Your task to perform on an android device: turn smart compose on in the gmail app Image 0: 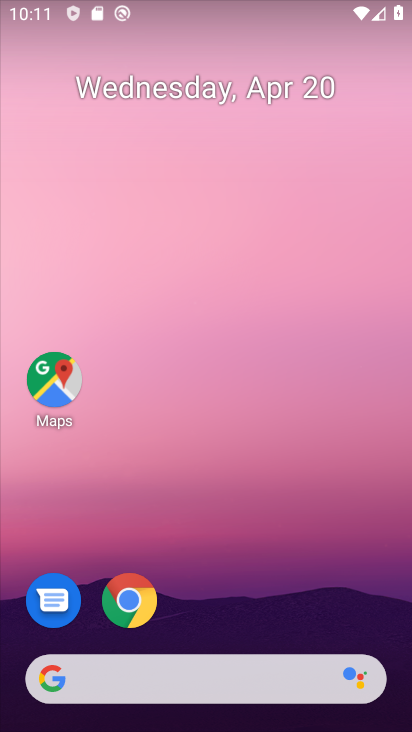
Step 0: drag from (320, 246) to (322, 157)
Your task to perform on an android device: turn smart compose on in the gmail app Image 1: 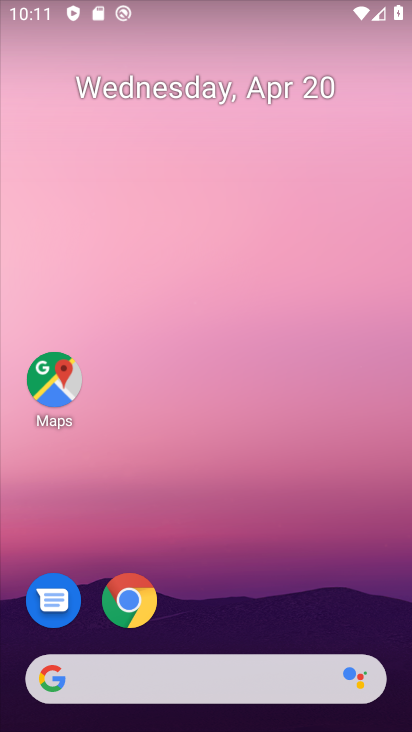
Step 1: drag from (229, 640) to (239, 175)
Your task to perform on an android device: turn smart compose on in the gmail app Image 2: 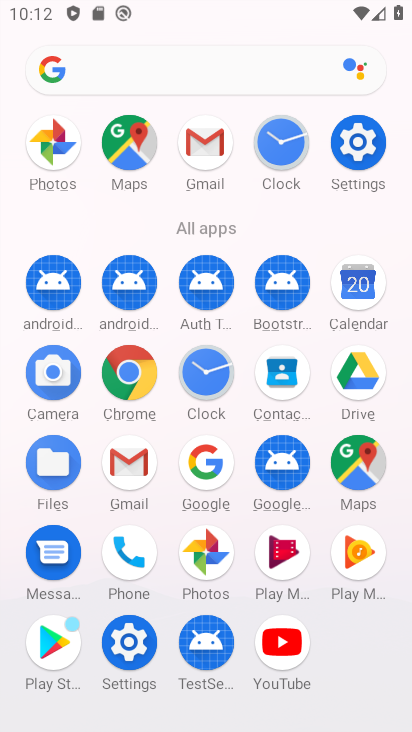
Step 2: click (131, 472)
Your task to perform on an android device: turn smart compose on in the gmail app Image 3: 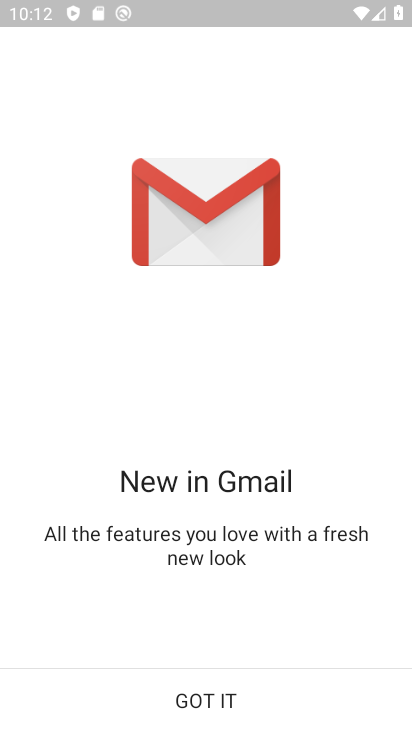
Step 3: click (184, 687)
Your task to perform on an android device: turn smart compose on in the gmail app Image 4: 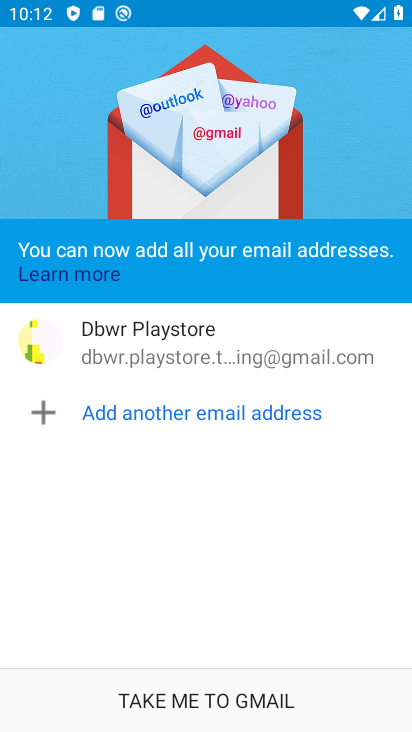
Step 4: click (184, 687)
Your task to perform on an android device: turn smart compose on in the gmail app Image 5: 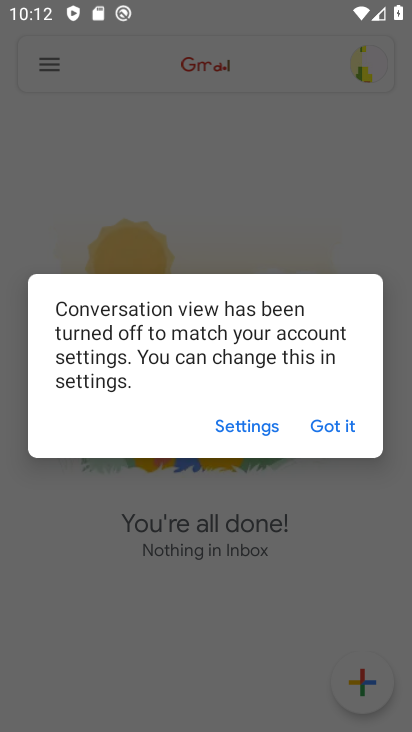
Step 5: click (326, 429)
Your task to perform on an android device: turn smart compose on in the gmail app Image 6: 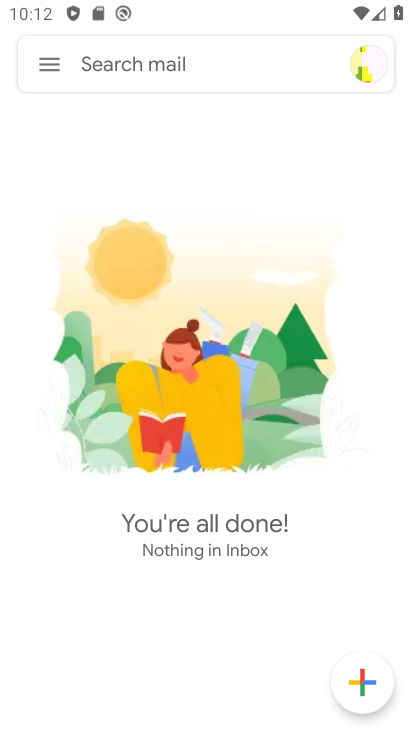
Step 6: click (51, 66)
Your task to perform on an android device: turn smart compose on in the gmail app Image 7: 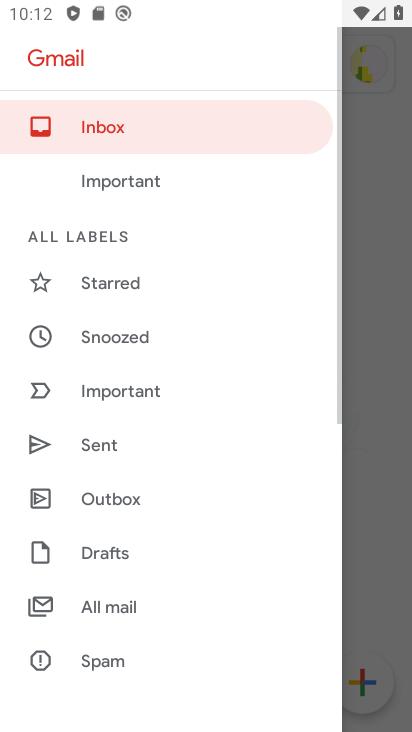
Step 7: drag from (183, 638) to (239, 67)
Your task to perform on an android device: turn smart compose on in the gmail app Image 8: 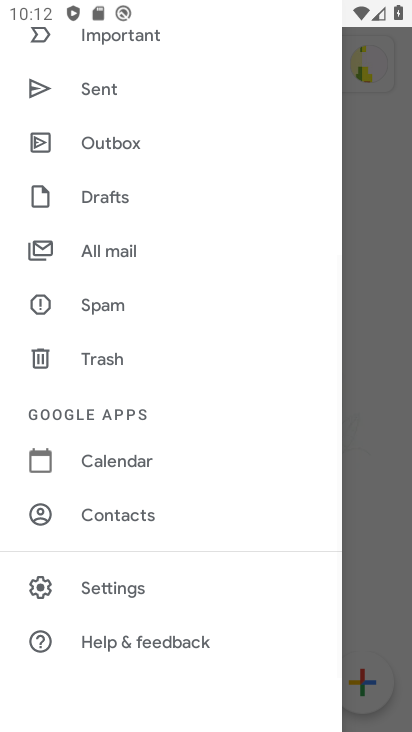
Step 8: click (133, 588)
Your task to perform on an android device: turn smart compose on in the gmail app Image 9: 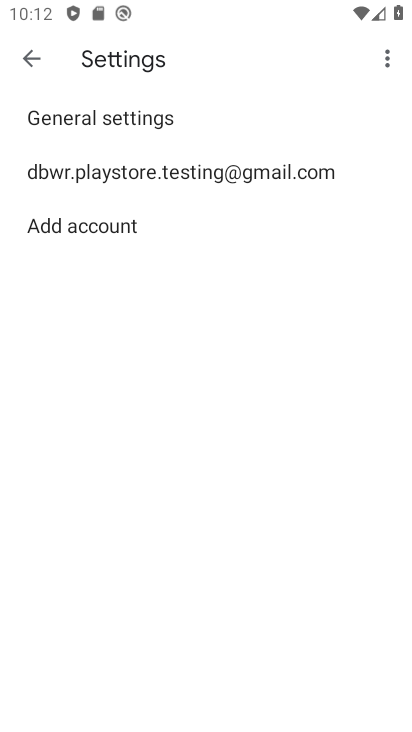
Step 9: click (205, 182)
Your task to perform on an android device: turn smart compose on in the gmail app Image 10: 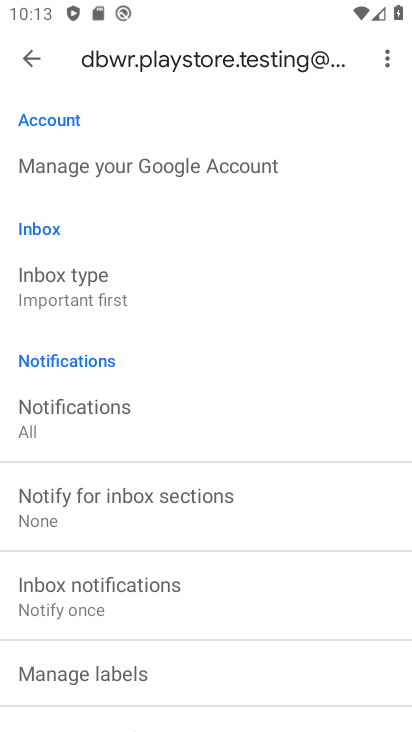
Step 10: task complete